Your task to perform on an android device: star an email in the gmail app Image 0: 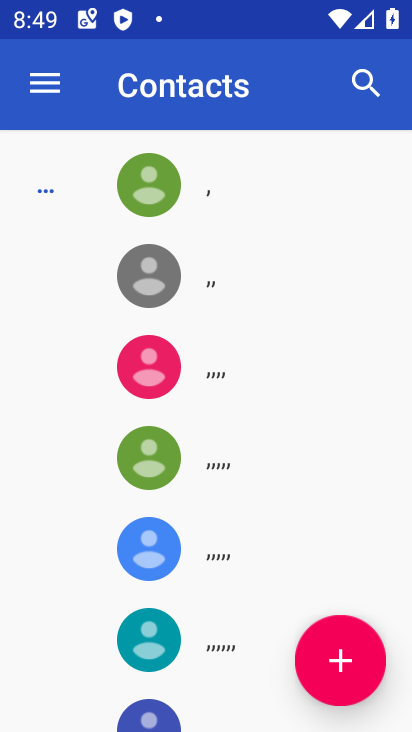
Step 0: press home button
Your task to perform on an android device: star an email in the gmail app Image 1: 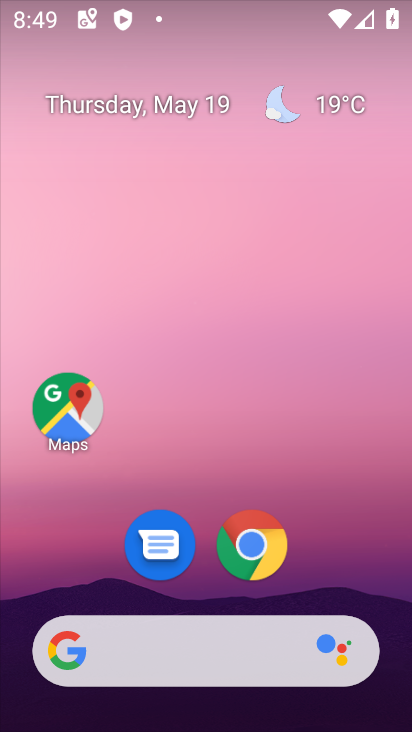
Step 1: drag from (324, 565) to (313, 227)
Your task to perform on an android device: star an email in the gmail app Image 2: 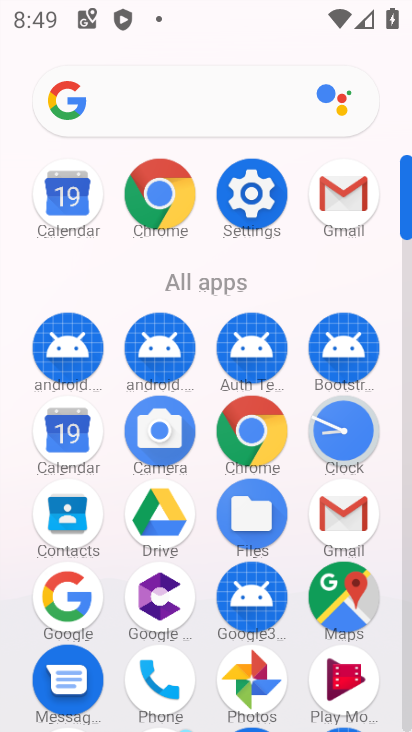
Step 2: click (338, 506)
Your task to perform on an android device: star an email in the gmail app Image 3: 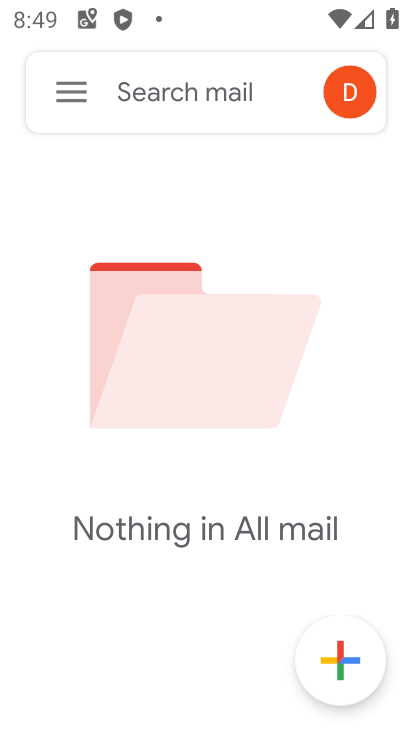
Step 3: click (76, 119)
Your task to perform on an android device: star an email in the gmail app Image 4: 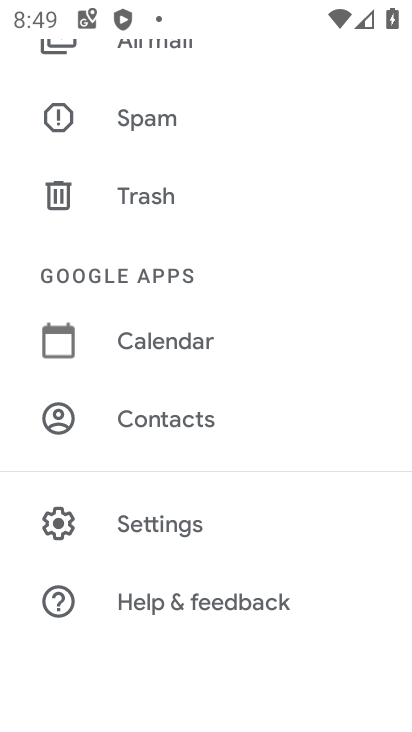
Step 4: drag from (119, 276) to (141, 630)
Your task to perform on an android device: star an email in the gmail app Image 5: 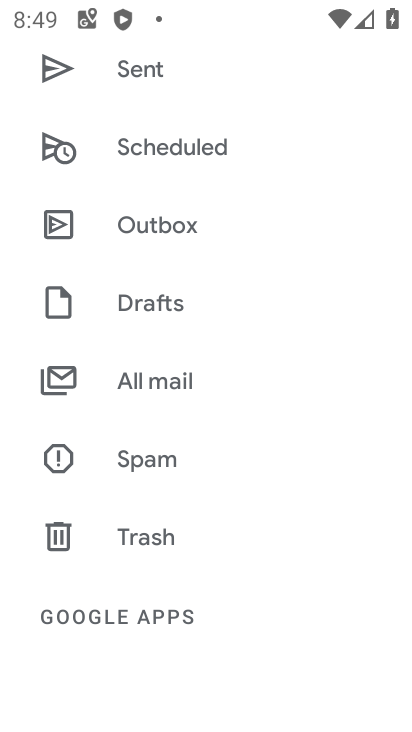
Step 5: drag from (149, 415) to (150, 648)
Your task to perform on an android device: star an email in the gmail app Image 6: 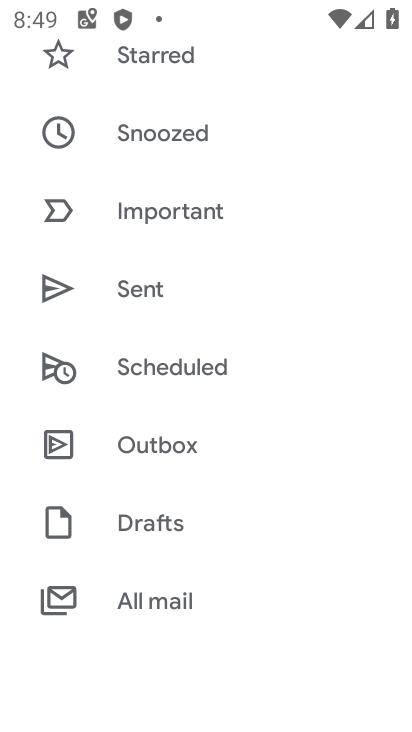
Step 6: drag from (152, 288) to (164, 502)
Your task to perform on an android device: star an email in the gmail app Image 7: 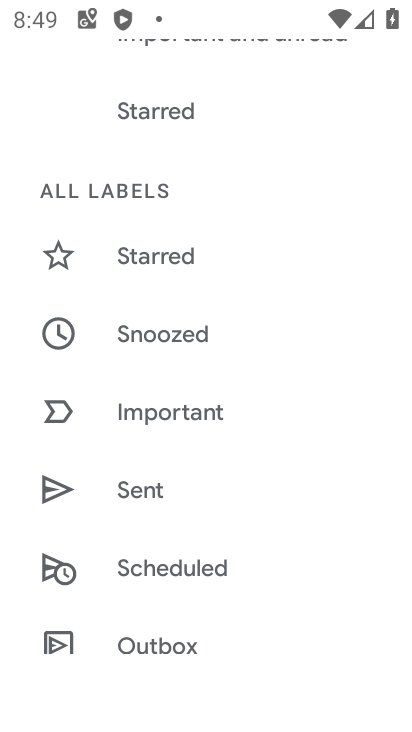
Step 7: click (160, 278)
Your task to perform on an android device: star an email in the gmail app Image 8: 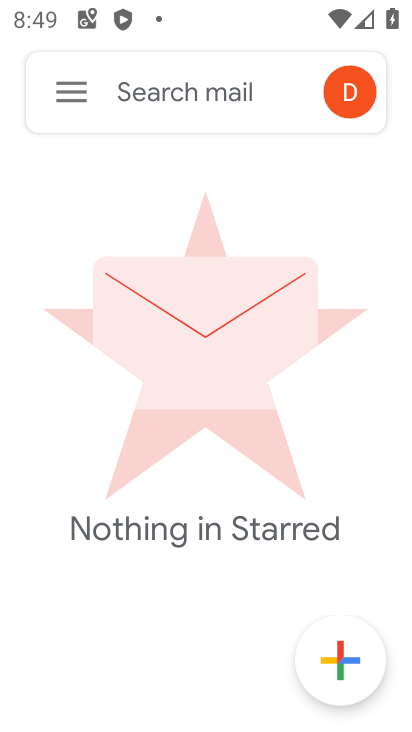
Step 8: task complete